Your task to perform on an android device: set the stopwatch Image 0: 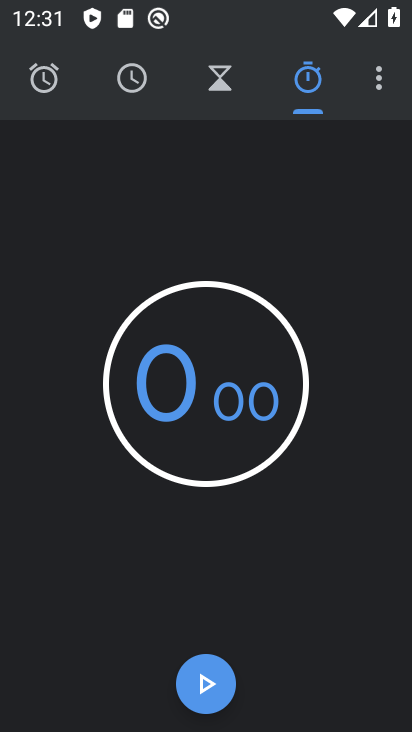
Step 0: press home button
Your task to perform on an android device: set the stopwatch Image 1: 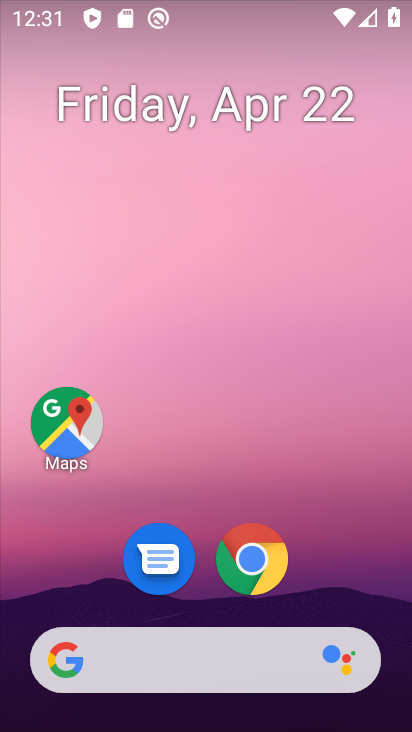
Step 1: drag from (363, 594) to (238, 63)
Your task to perform on an android device: set the stopwatch Image 2: 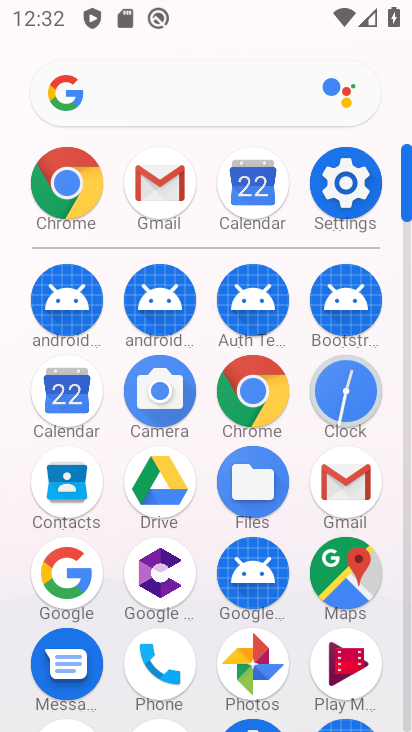
Step 2: click (343, 396)
Your task to perform on an android device: set the stopwatch Image 3: 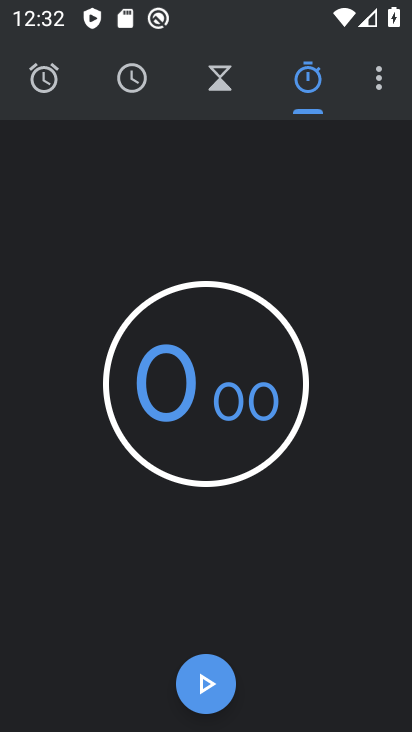
Step 3: task complete